Your task to perform on an android device: set the timer Image 0: 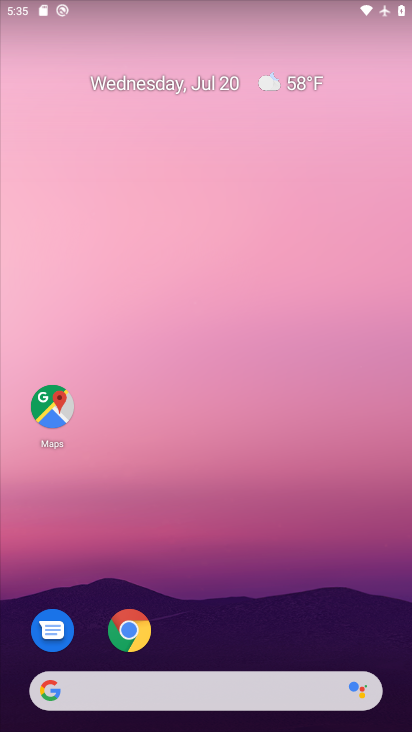
Step 0: drag from (273, 632) to (234, 0)
Your task to perform on an android device: set the timer Image 1: 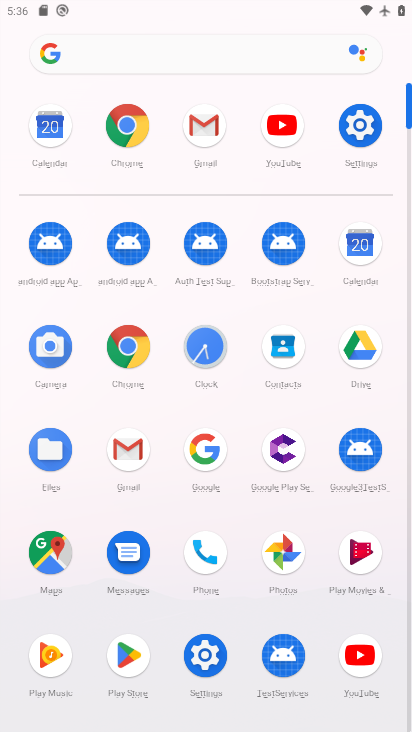
Step 1: click (204, 339)
Your task to perform on an android device: set the timer Image 2: 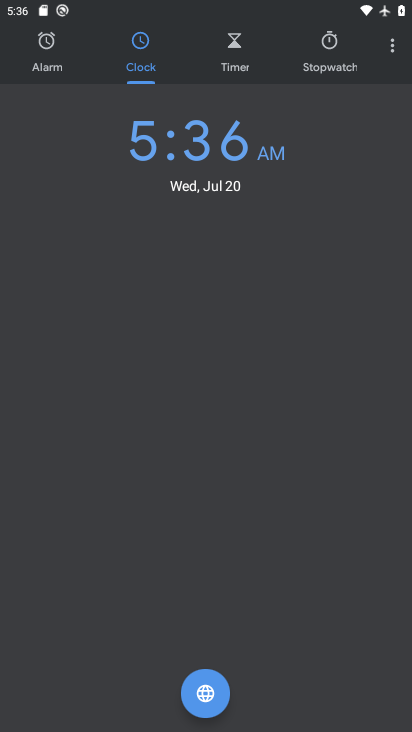
Step 2: click (241, 44)
Your task to perform on an android device: set the timer Image 3: 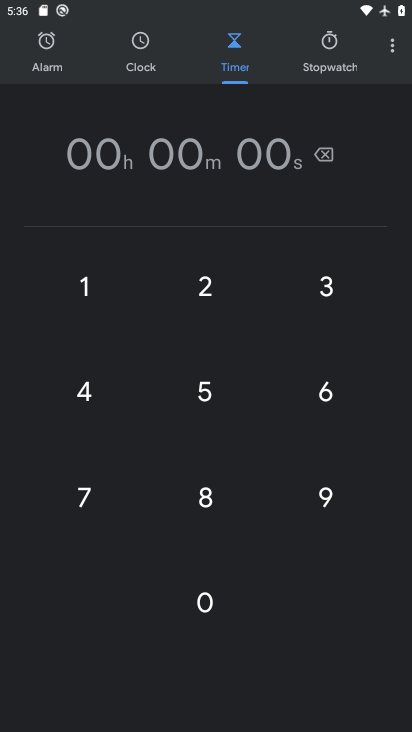
Step 3: click (223, 295)
Your task to perform on an android device: set the timer Image 4: 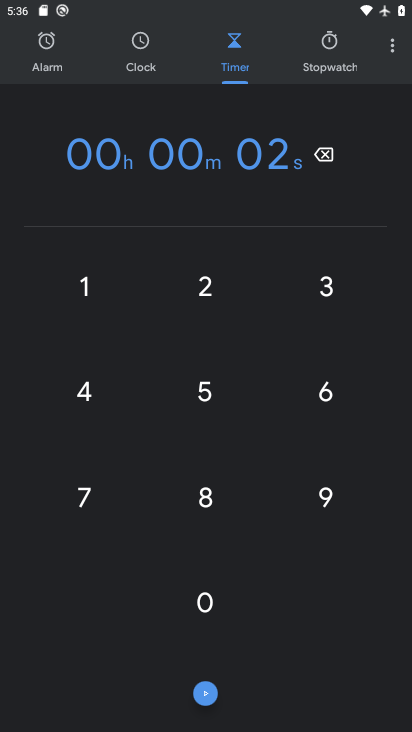
Step 4: click (223, 295)
Your task to perform on an android device: set the timer Image 5: 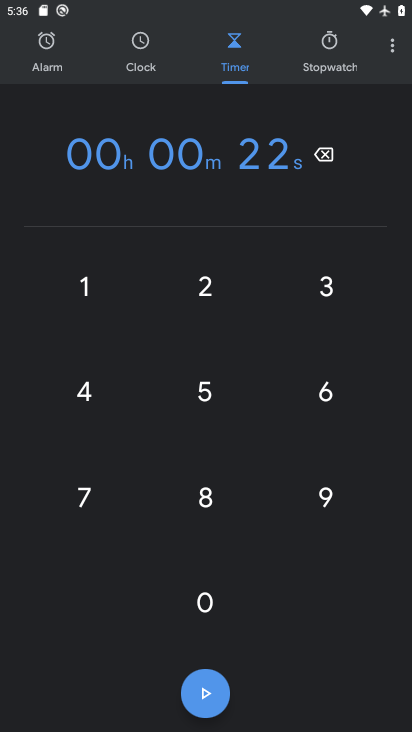
Step 5: click (208, 274)
Your task to perform on an android device: set the timer Image 6: 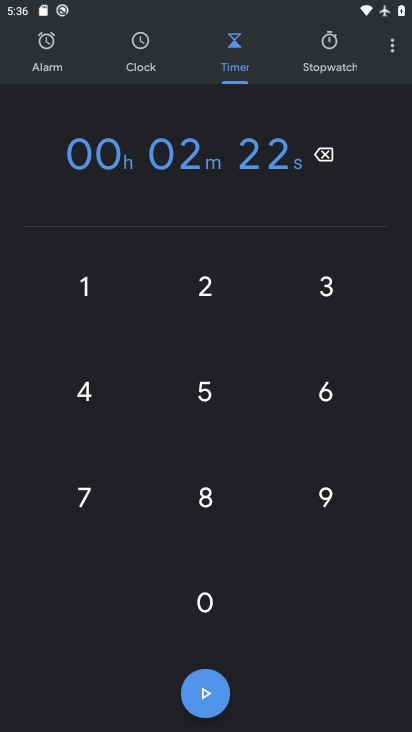
Step 6: click (326, 501)
Your task to perform on an android device: set the timer Image 7: 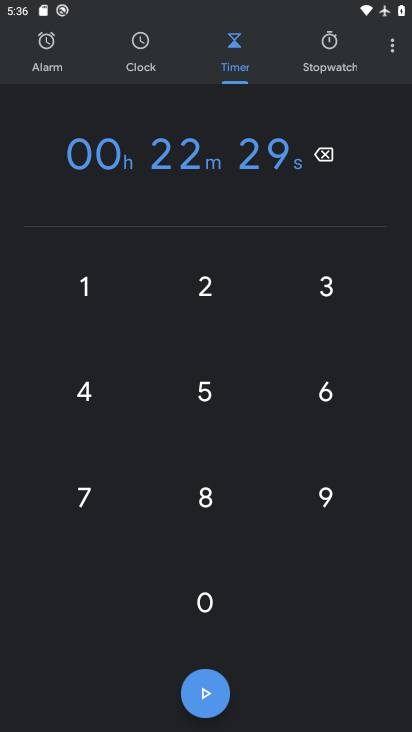
Step 7: click (93, 286)
Your task to perform on an android device: set the timer Image 8: 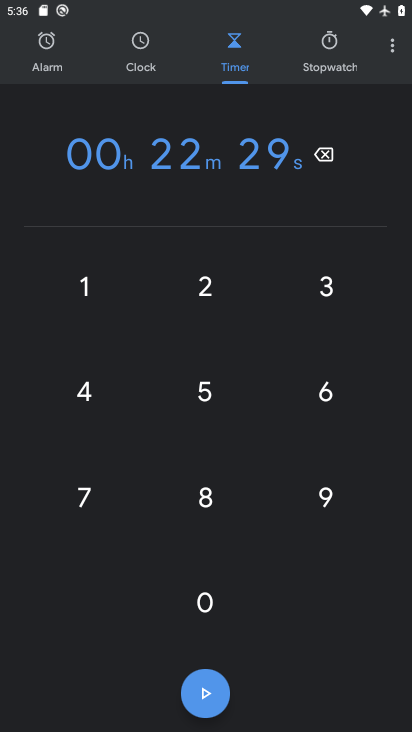
Step 8: click (93, 286)
Your task to perform on an android device: set the timer Image 9: 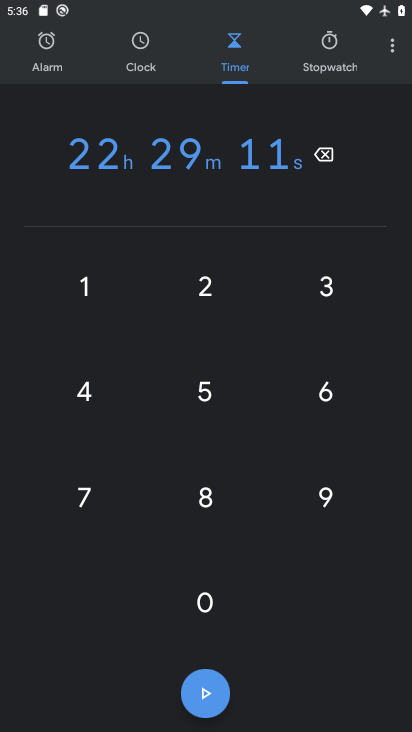
Step 9: click (204, 687)
Your task to perform on an android device: set the timer Image 10: 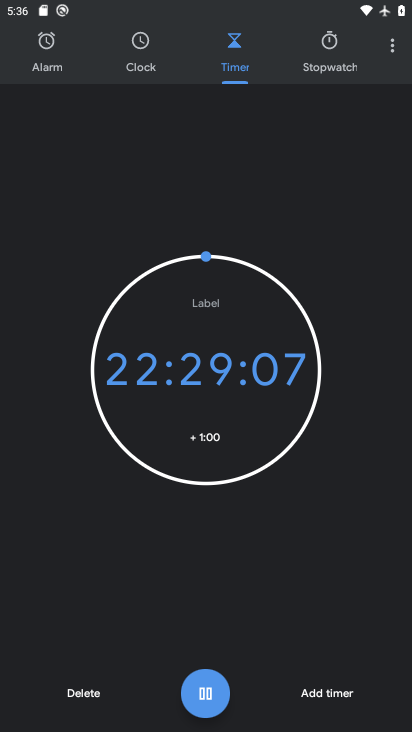
Step 10: task complete